Your task to perform on an android device: turn pop-ups on in chrome Image 0: 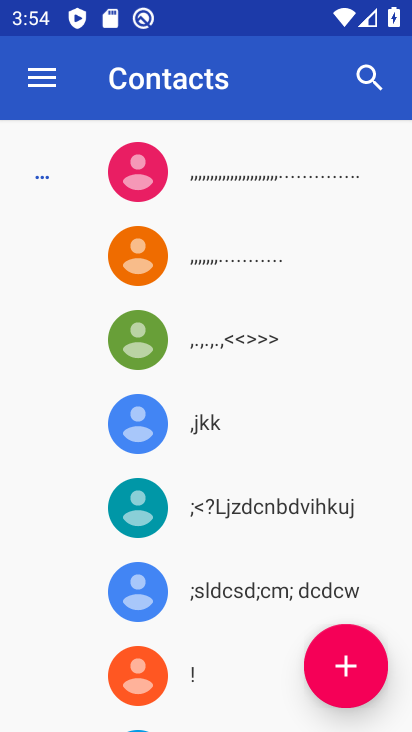
Step 0: press home button
Your task to perform on an android device: turn pop-ups on in chrome Image 1: 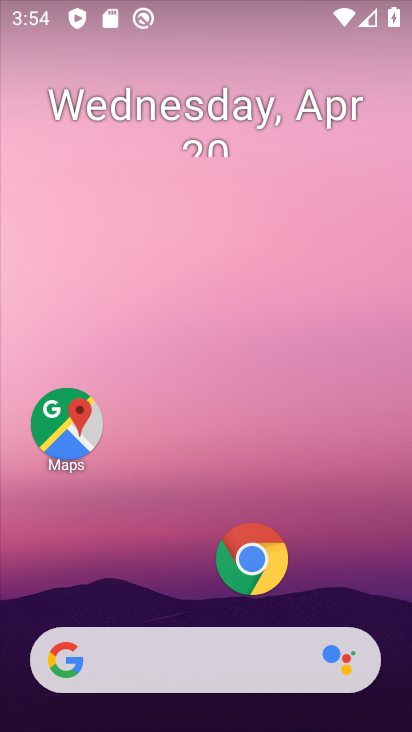
Step 1: click (187, 655)
Your task to perform on an android device: turn pop-ups on in chrome Image 2: 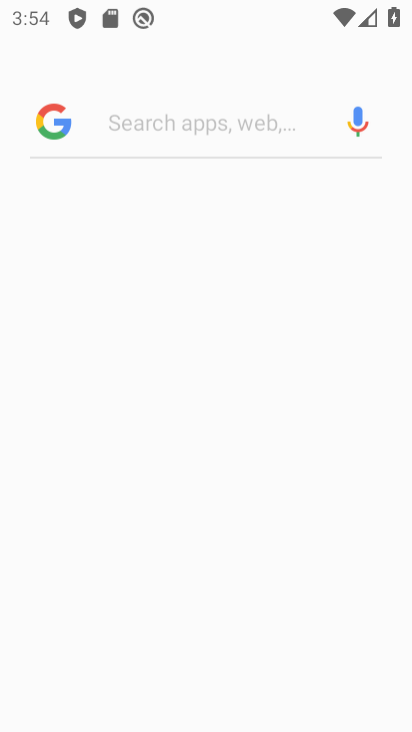
Step 2: click (259, 554)
Your task to perform on an android device: turn pop-ups on in chrome Image 3: 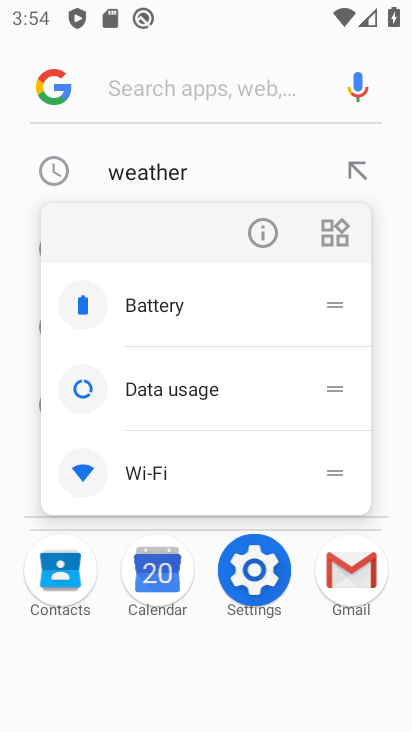
Step 3: press home button
Your task to perform on an android device: turn pop-ups on in chrome Image 4: 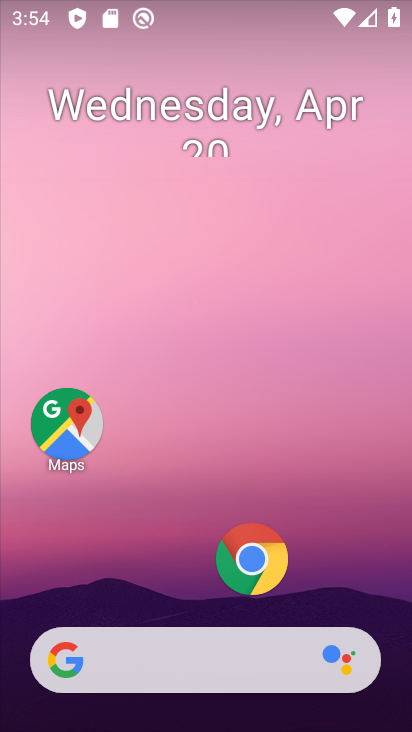
Step 4: click (257, 557)
Your task to perform on an android device: turn pop-ups on in chrome Image 5: 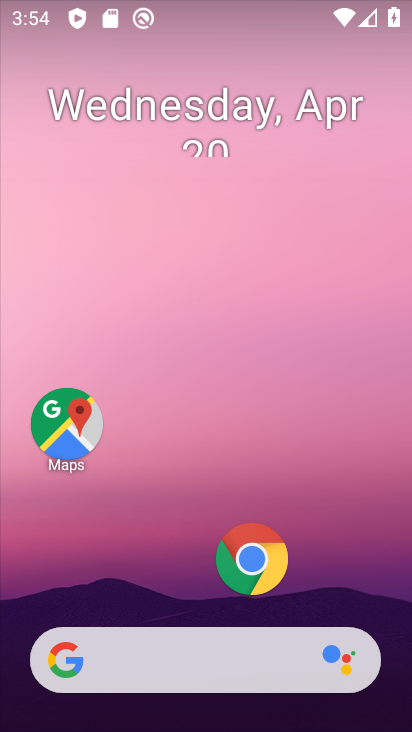
Step 5: click (243, 557)
Your task to perform on an android device: turn pop-ups on in chrome Image 6: 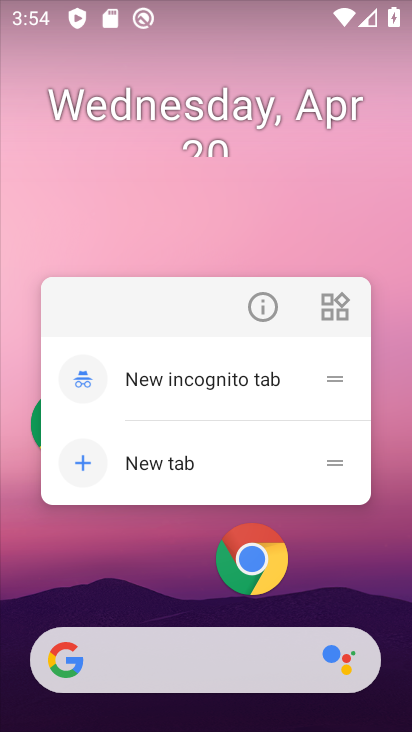
Step 6: click (266, 317)
Your task to perform on an android device: turn pop-ups on in chrome Image 7: 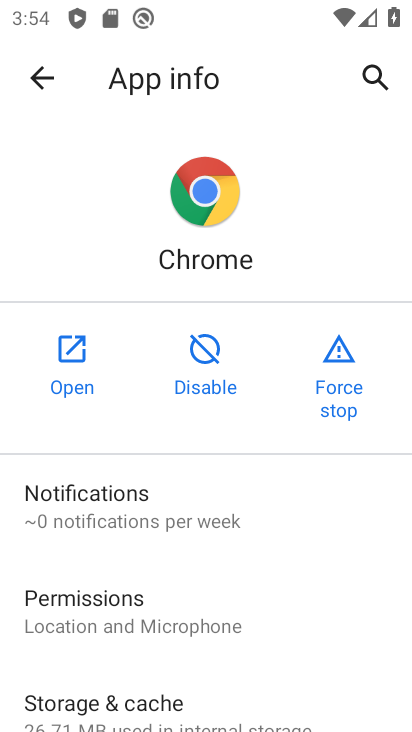
Step 7: click (51, 360)
Your task to perform on an android device: turn pop-ups on in chrome Image 8: 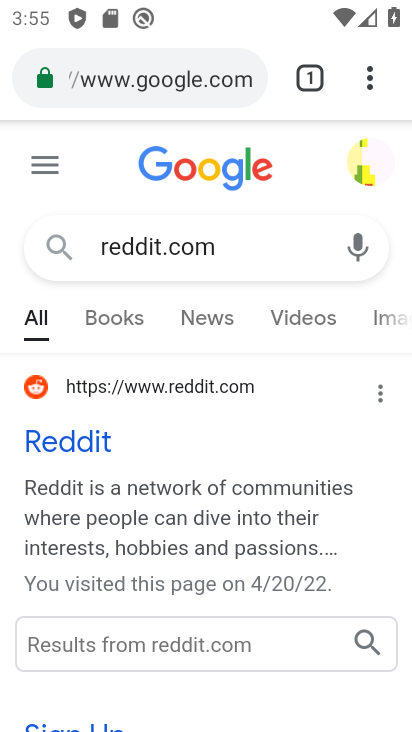
Step 8: click (370, 87)
Your task to perform on an android device: turn pop-ups on in chrome Image 9: 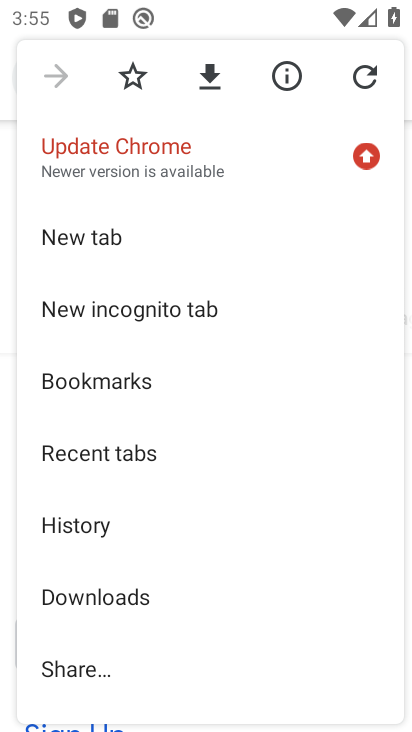
Step 9: drag from (160, 586) to (236, 237)
Your task to perform on an android device: turn pop-ups on in chrome Image 10: 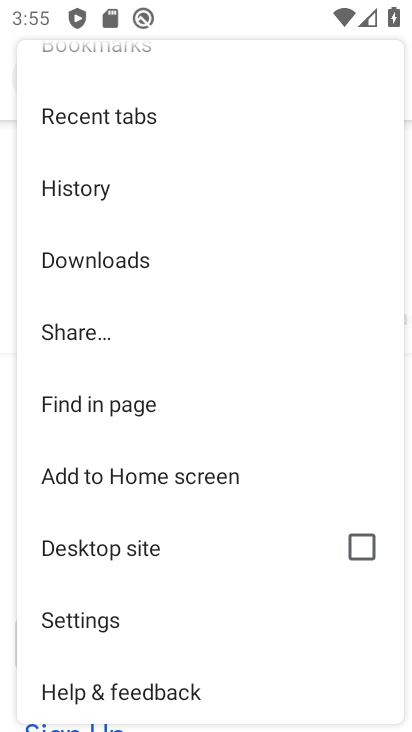
Step 10: click (82, 615)
Your task to perform on an android device: turn pop-ups on in chrome Image 11: 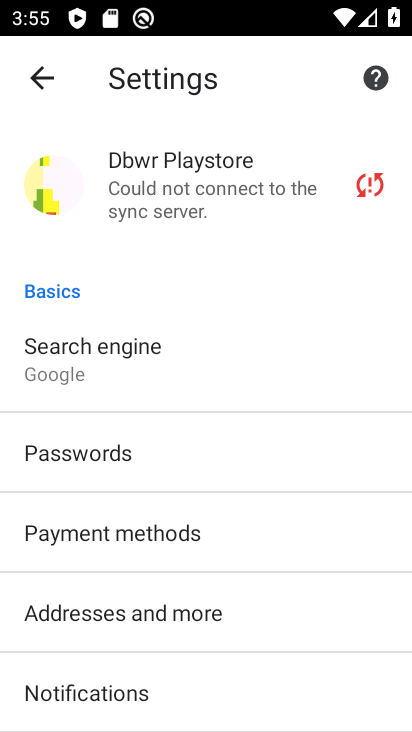
Step 11: drag from (136, 625) to (207, 295)
Your task to perform on an android device: turn pop-ups on in chrome Image 12: 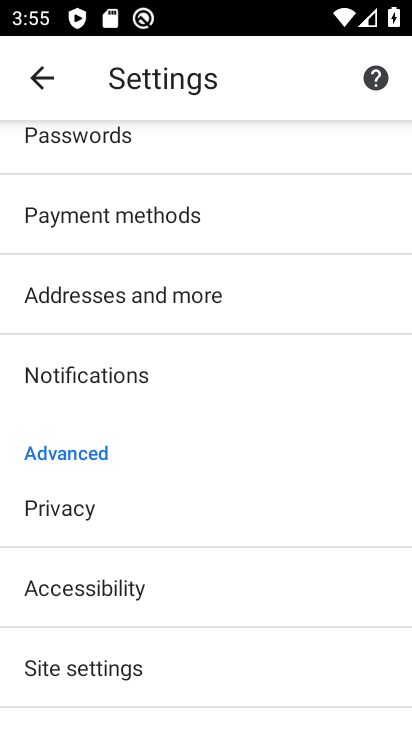
Step 12: click (71, 668)
Your task to perform on an android device: turn pop-ups on in chrome Image 13: 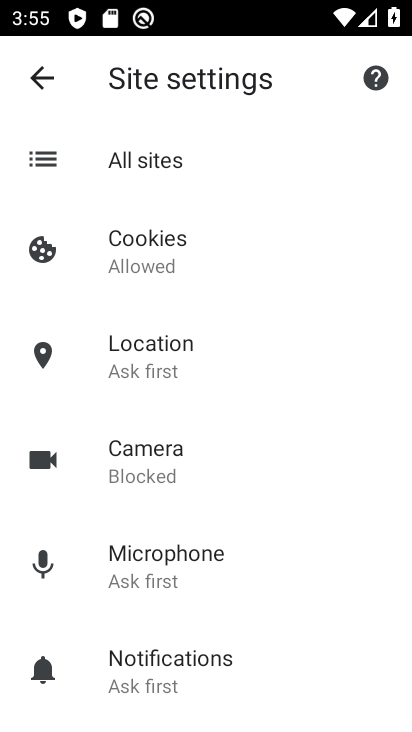
Step 13: drag from (158, 640) to (248, 374)
Your task to perform on an android device: turn pop-ups on in chrome Image 14: 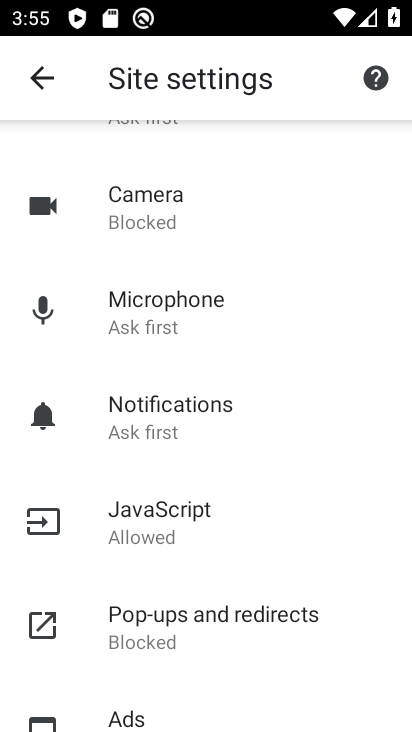
Step 14: click (157, 639)
Your task to perform on an android device: turn pop-ups on in chrome Image 15: 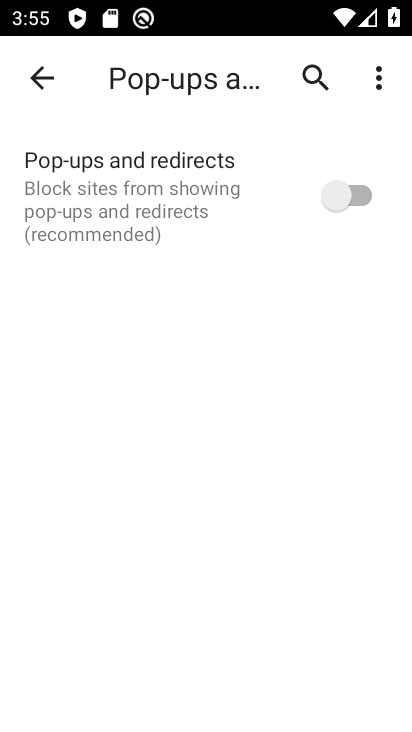
Step 15: click (352, 195)
Your task to perform on an android device: turn pop-ups on in chrome Image 16: 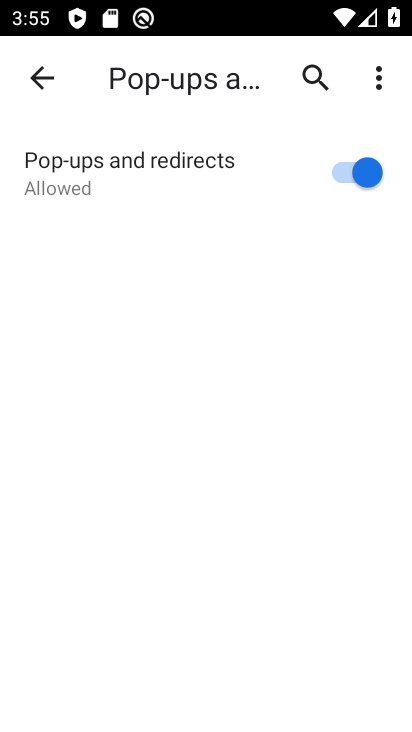
Step 16: task complete